Your task to perform on an android device: Search for a new eyeliner Image 0: 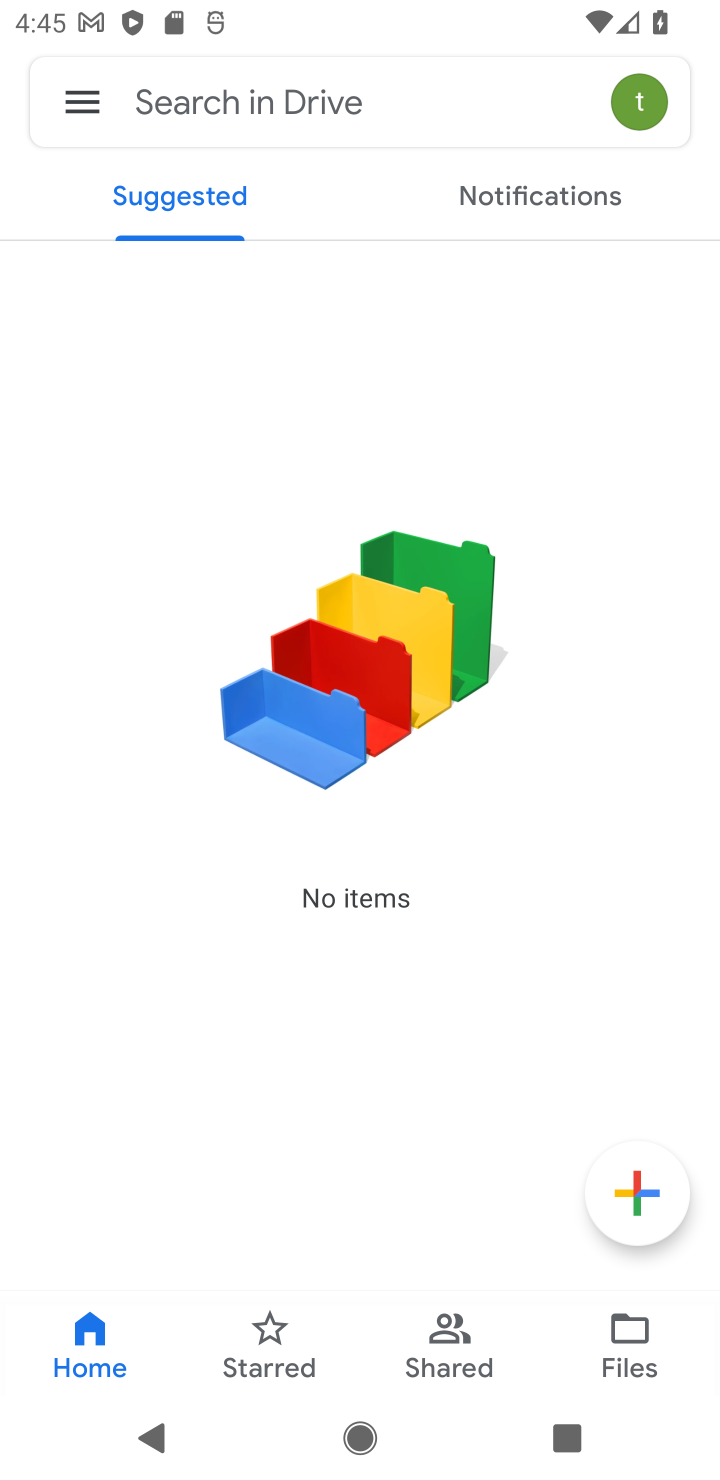
Step 0: press home button
Your task to perform on an android device: Search for a new eyeliner Image 1: 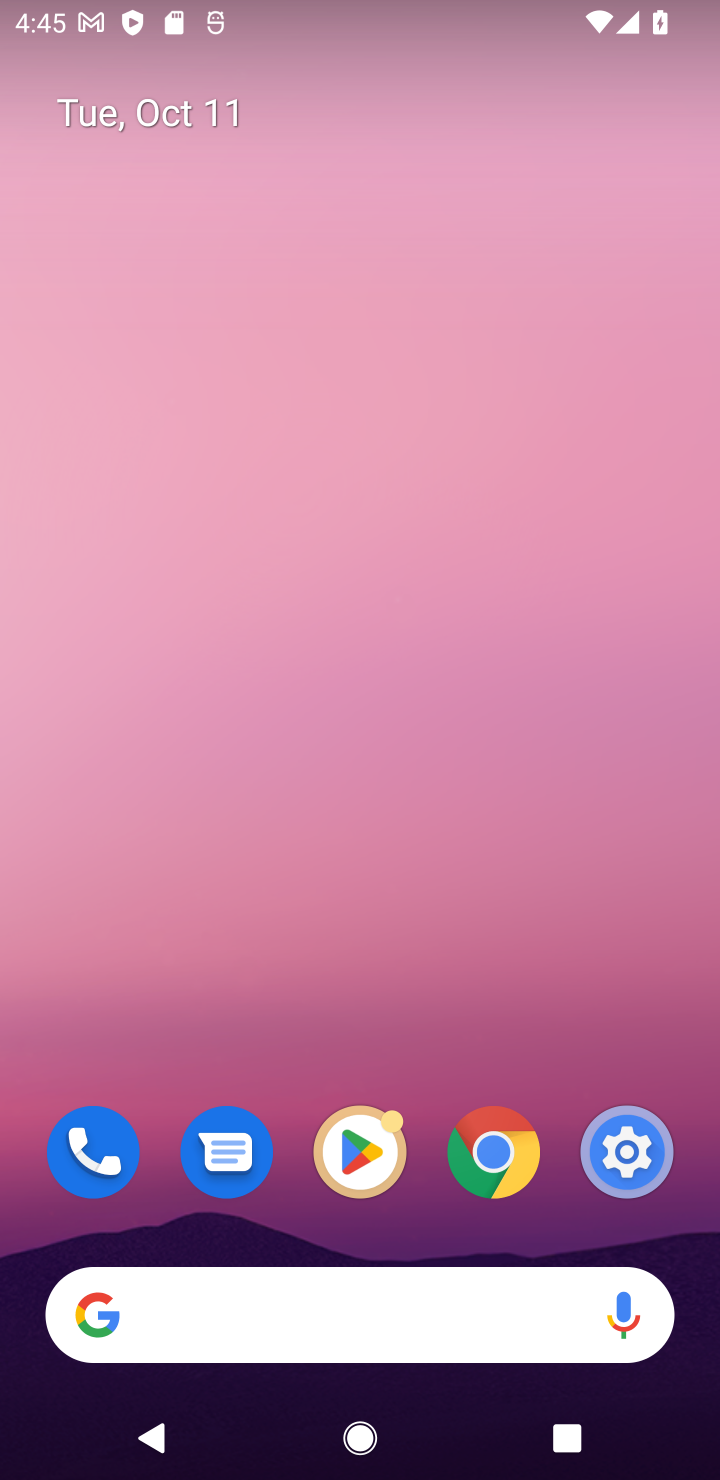
Step 1: click (492, 1172)
Your task to perform on an android device: Search for a new eyeliner Image 2: 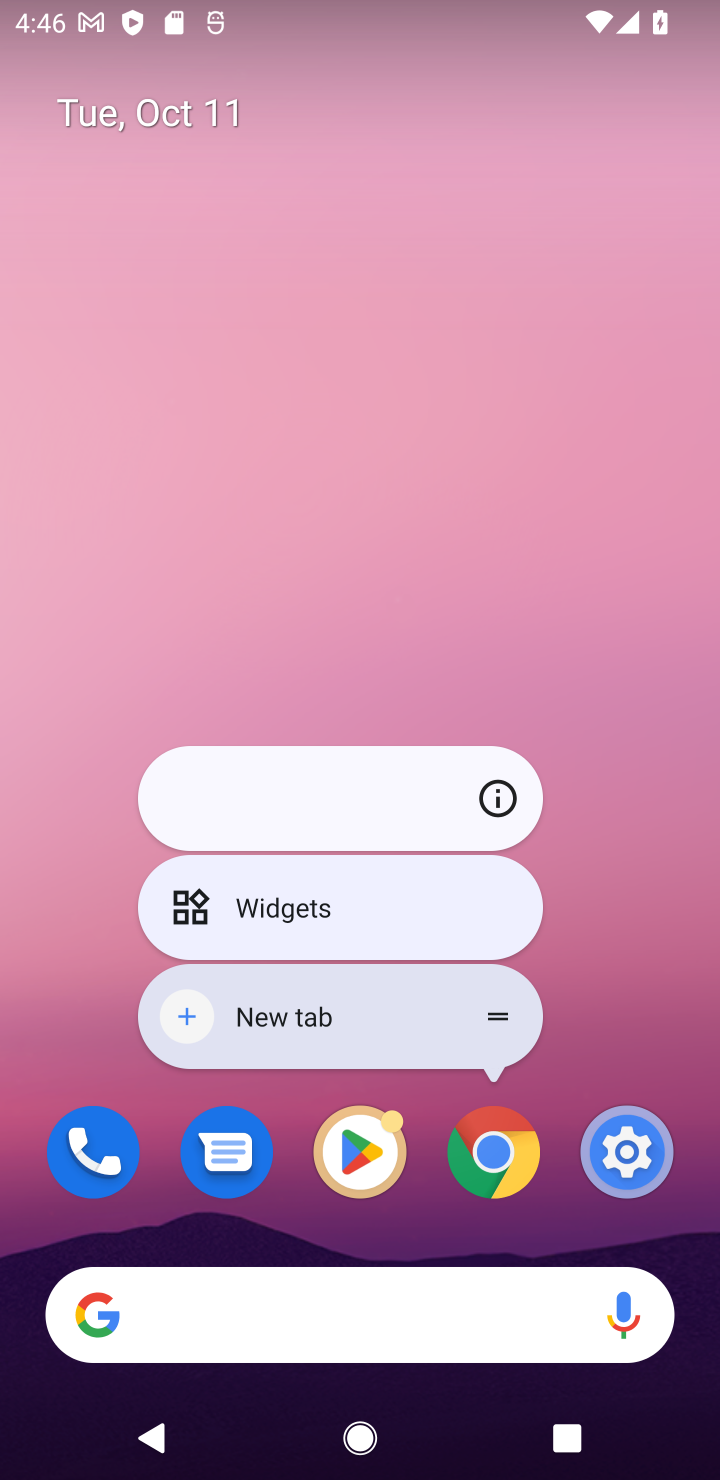
Step 2: click (503, 1199)
Your task to perform on an android device: Search for a new eyeliner Image 3: 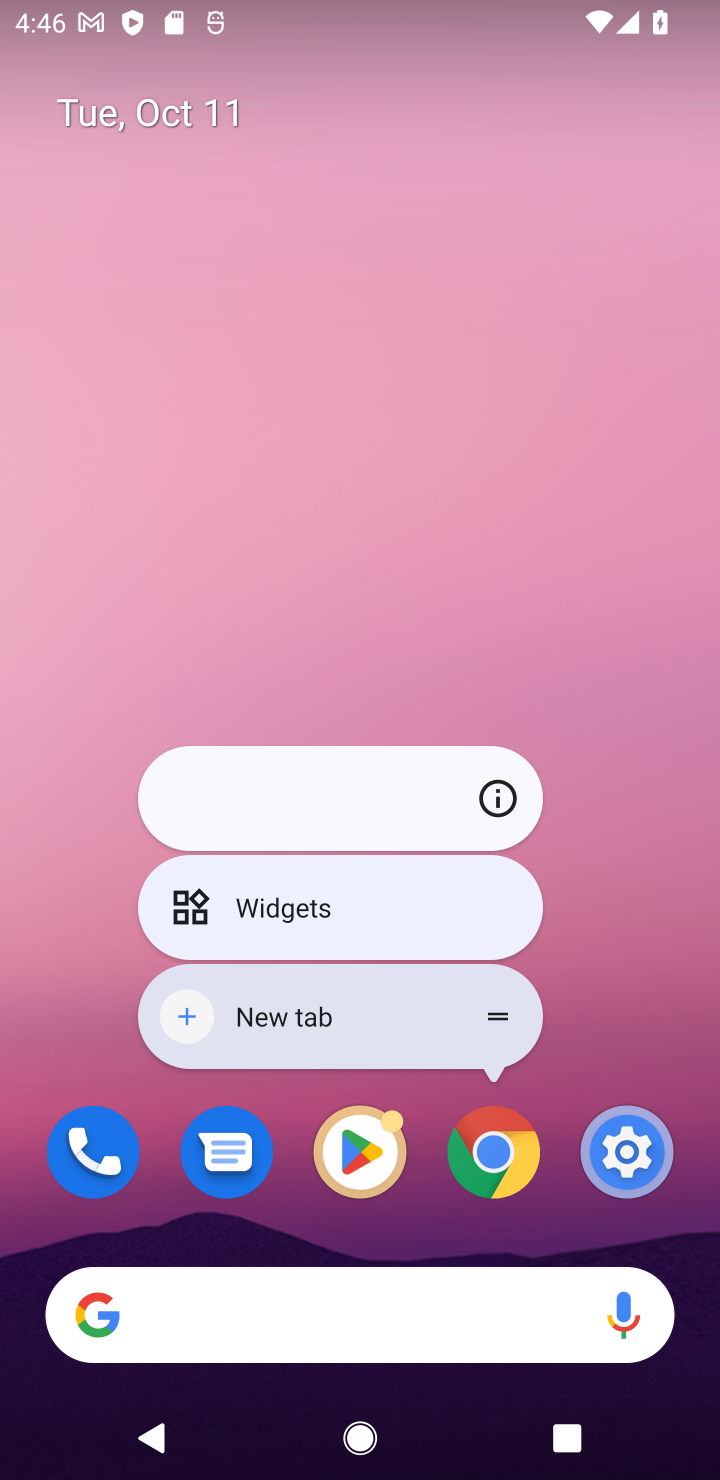
Step 3: click (287, 1326)
Your task to perform on an android device: Search for a new eyeliner Image 4: 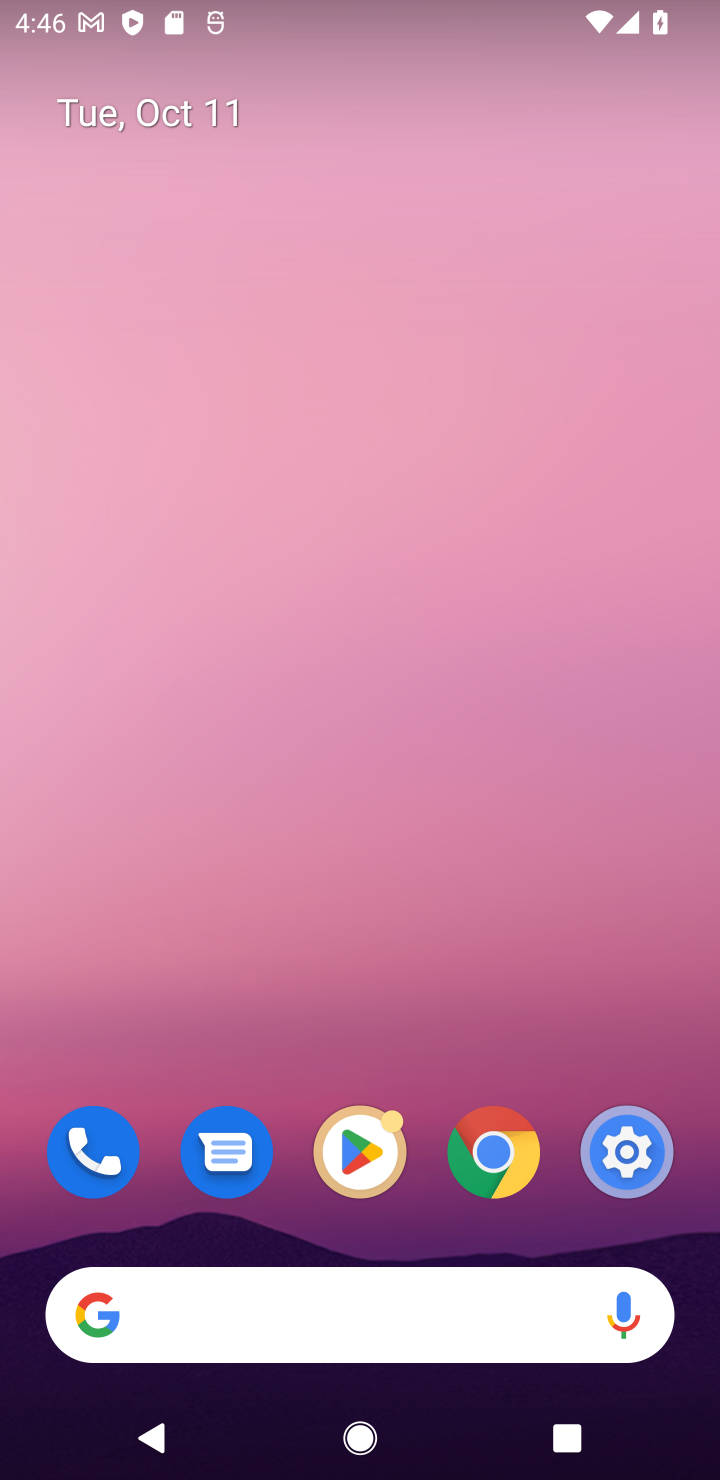
Step 4: click (313, 1334)
Your task to perform on an android device: Search for a new eyeliner Image 5: 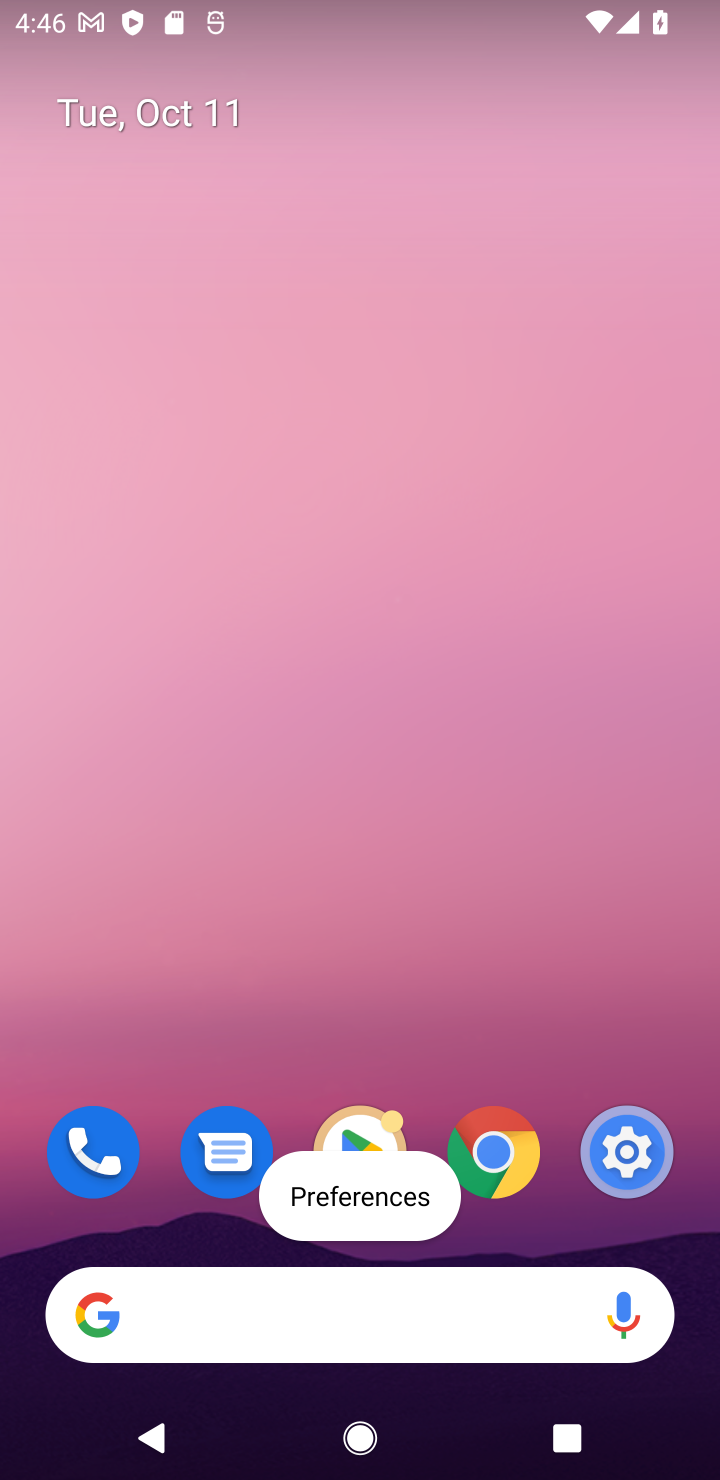
Step 5: click (504, 1153)
Your task to perform on an android device: Search for a new eyeliner Image 6: 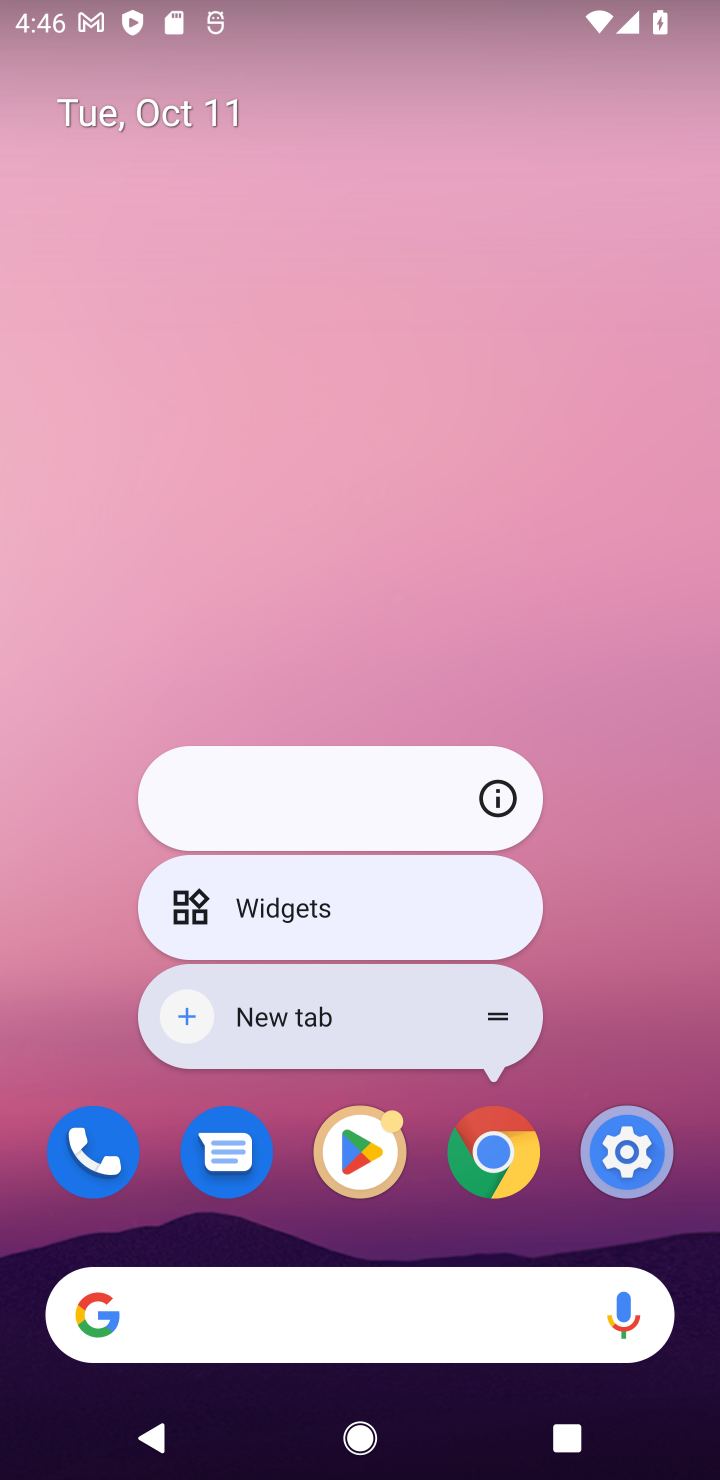
Step 6: click (494, 1197)
Your task to perform on an android device: Search for a new eyeliner Image 7: 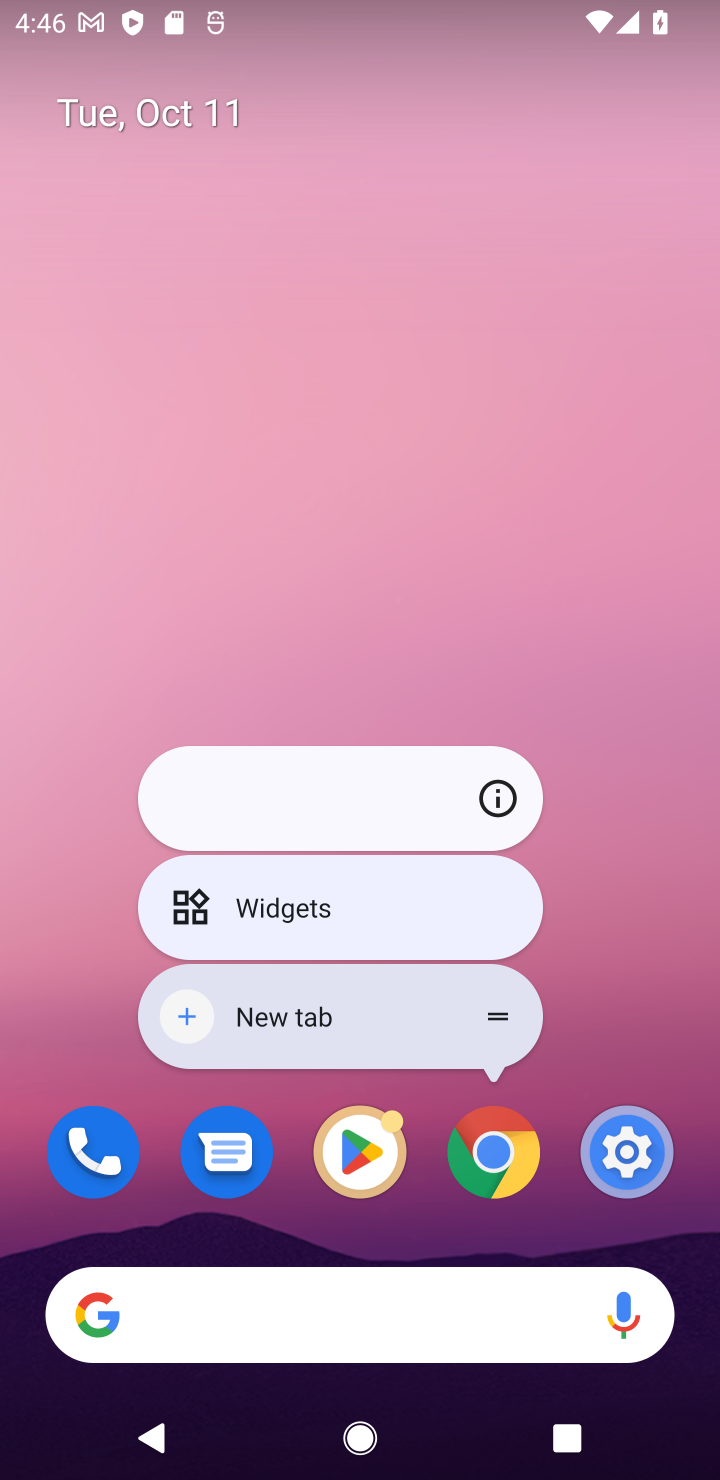
Step 7: click (350, 1017)
Your task to perform on an android device: Search for a new eyeliner Image 8: 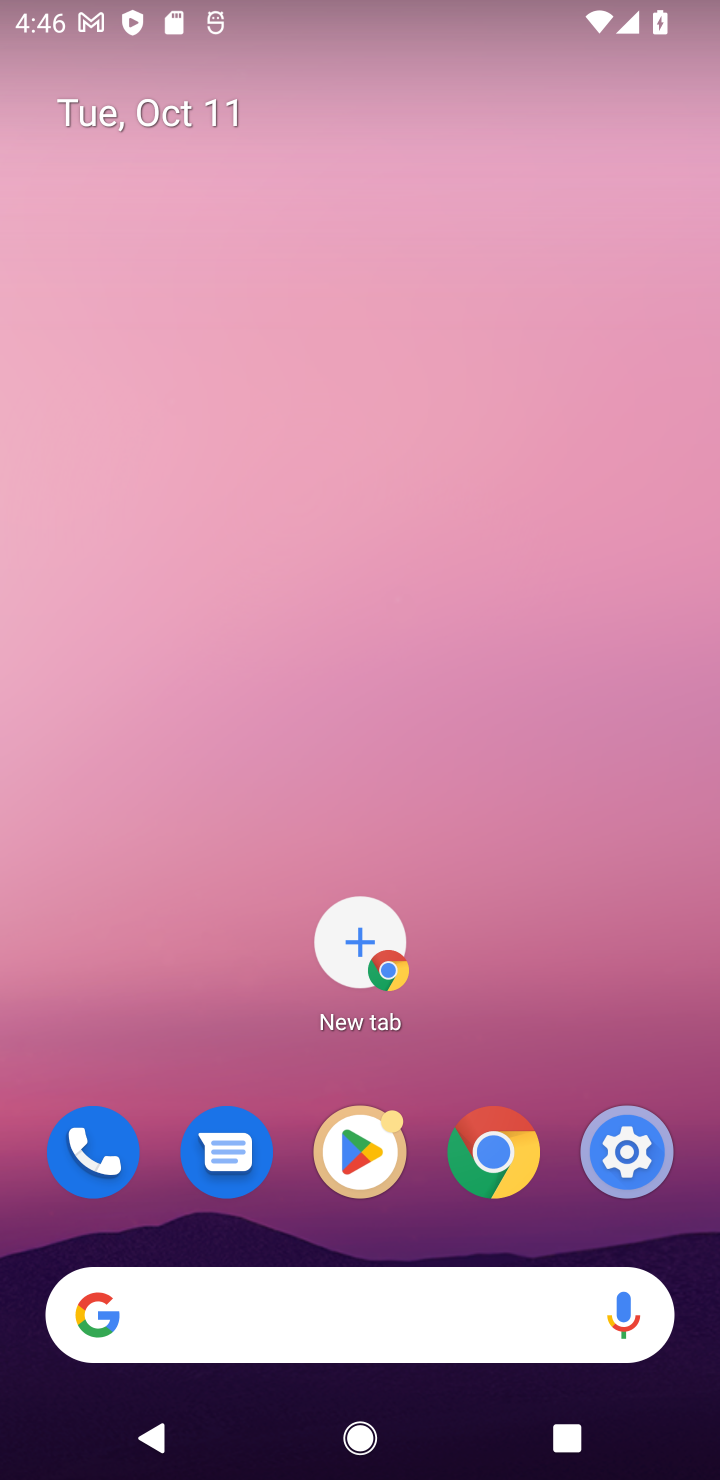
Step 8: click (380, 937)
Your task to perform on an android device: Search for a new eyeliner Image 9: 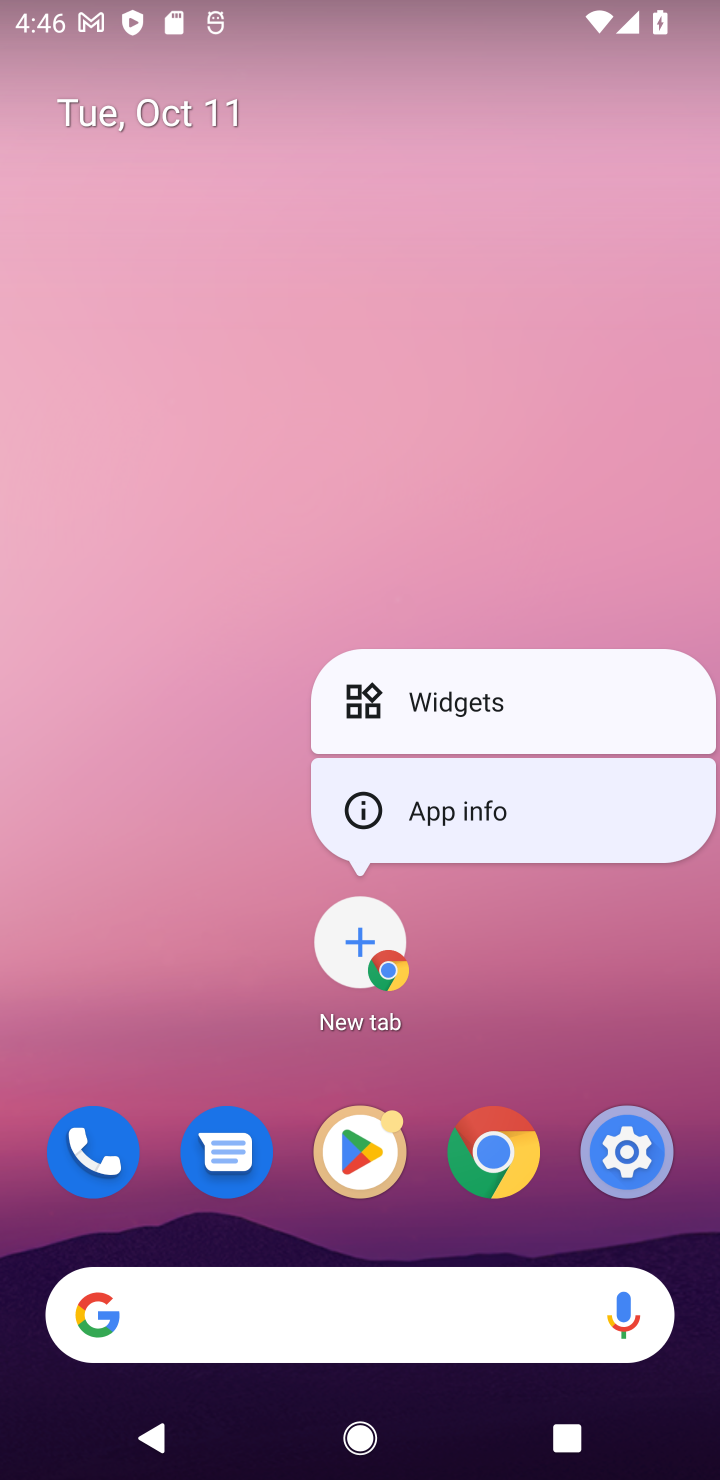
Step 9: click (456, 1032)
Your task to perform on an android device: Search for a new eyeliner Image 10: 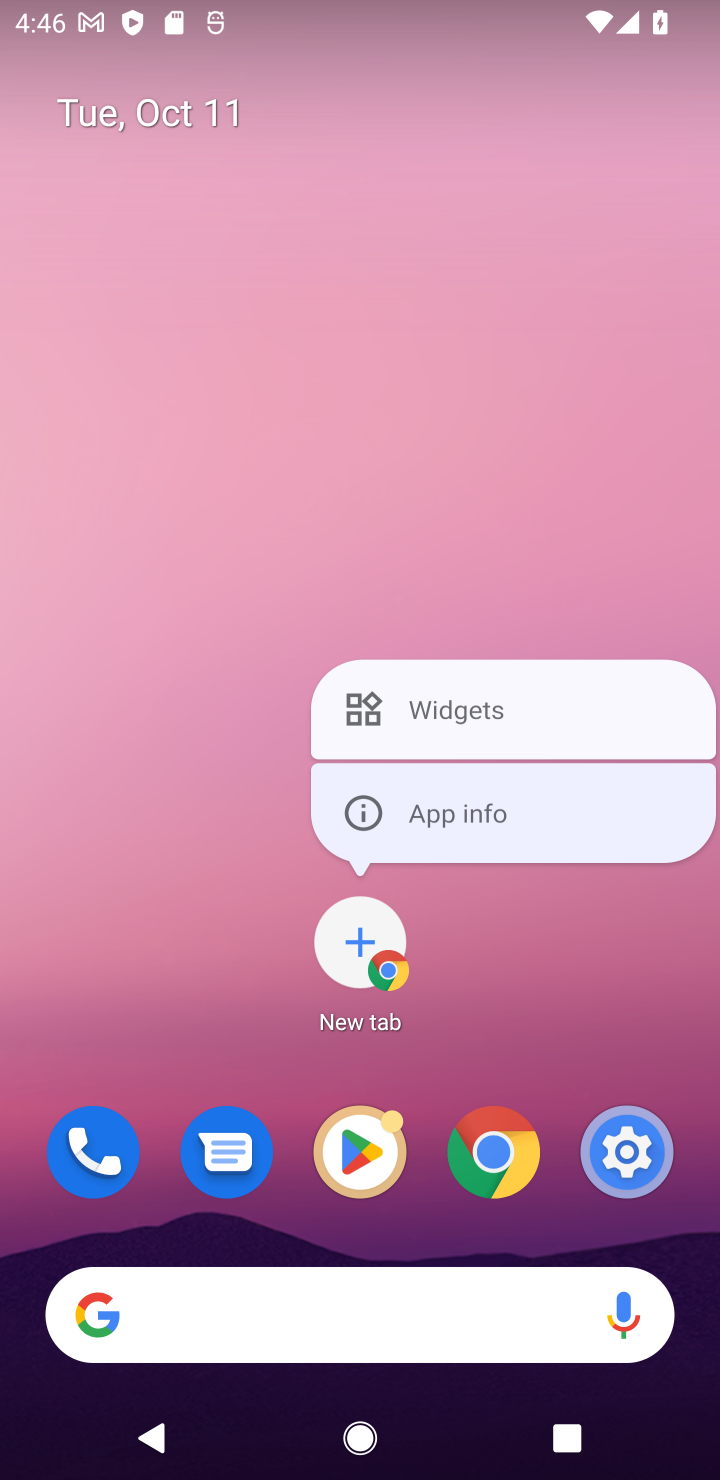
Step 10: click (484, 1156)
Your task to perform on an android device: Search for a new eyeliner Image 11: 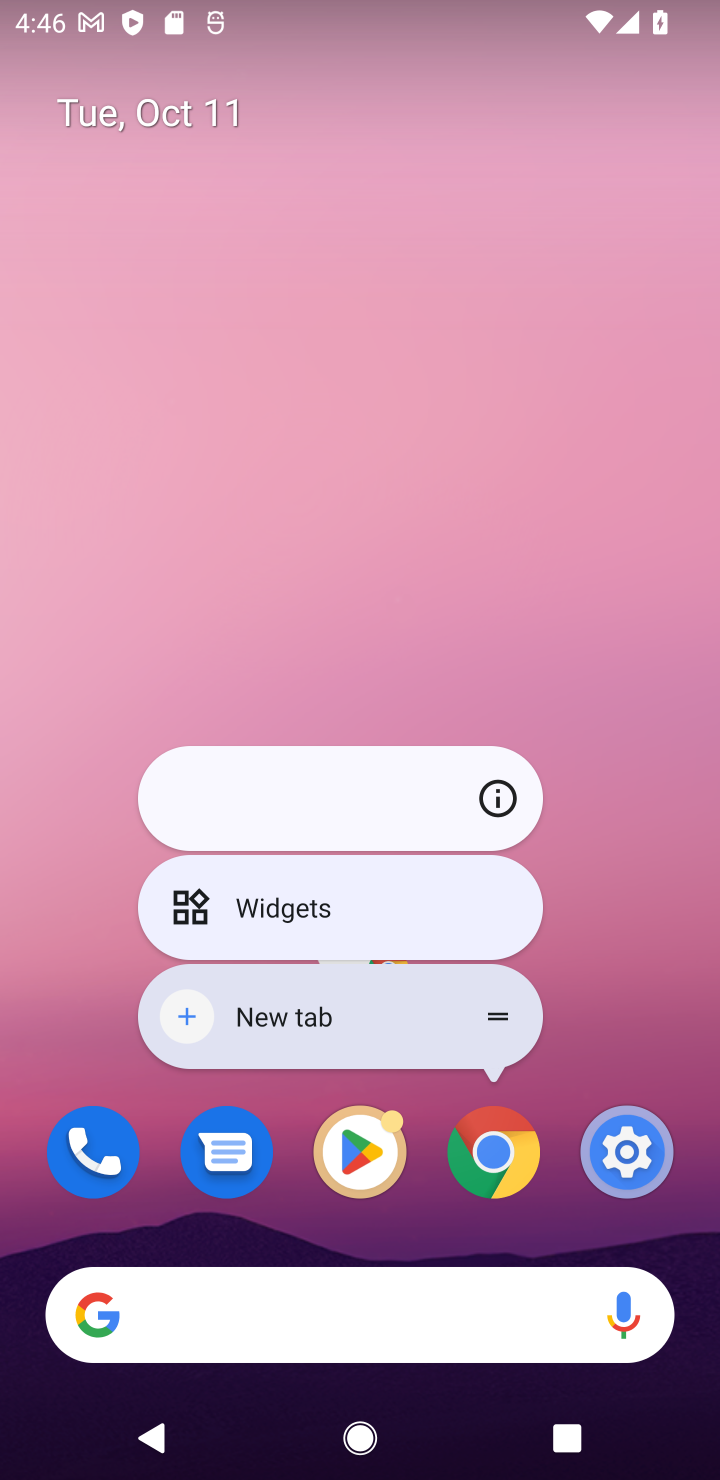
Step 11: click (507, 1166)
Your task to perform on an android device: Search for a new eyeliner Image 12: 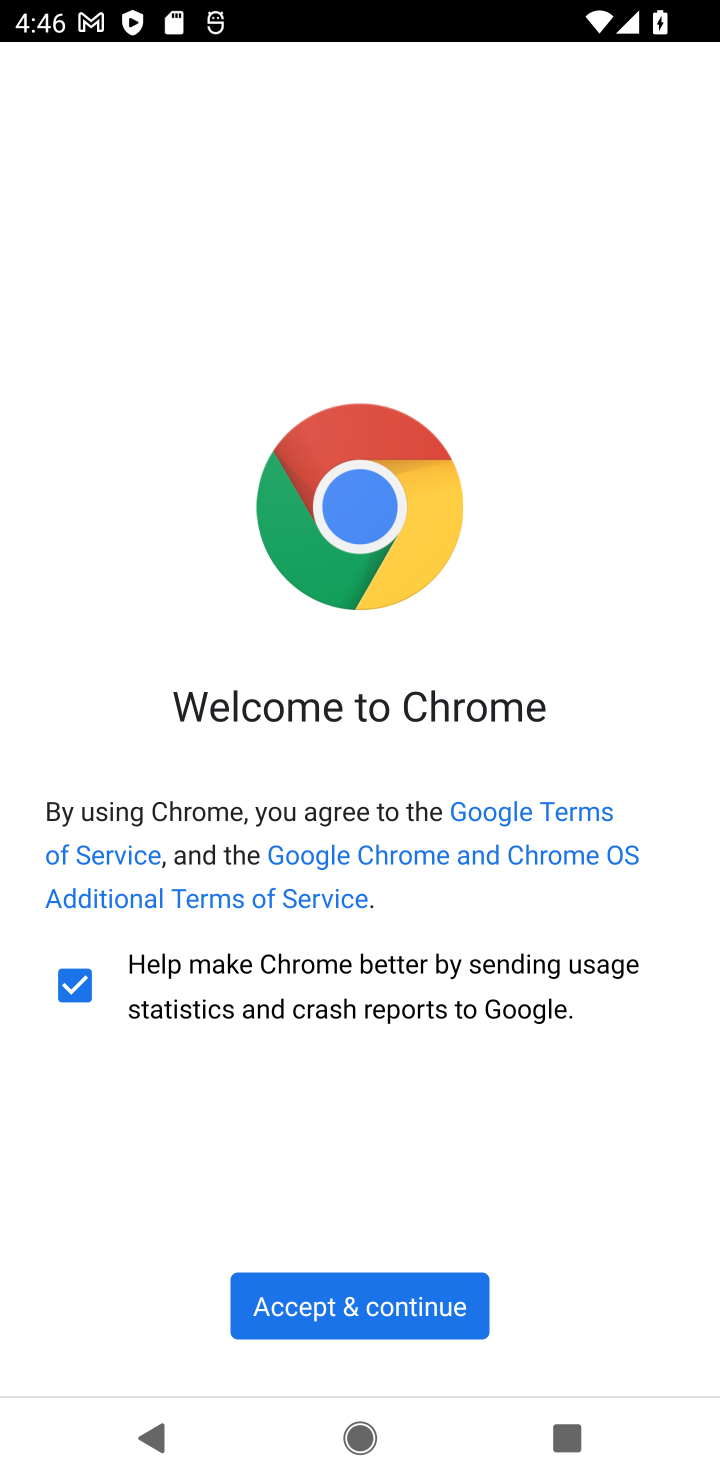
Step 12: click (438, 1303)
Your task to perform on an android device: Search for a new eyeliner Image 13: 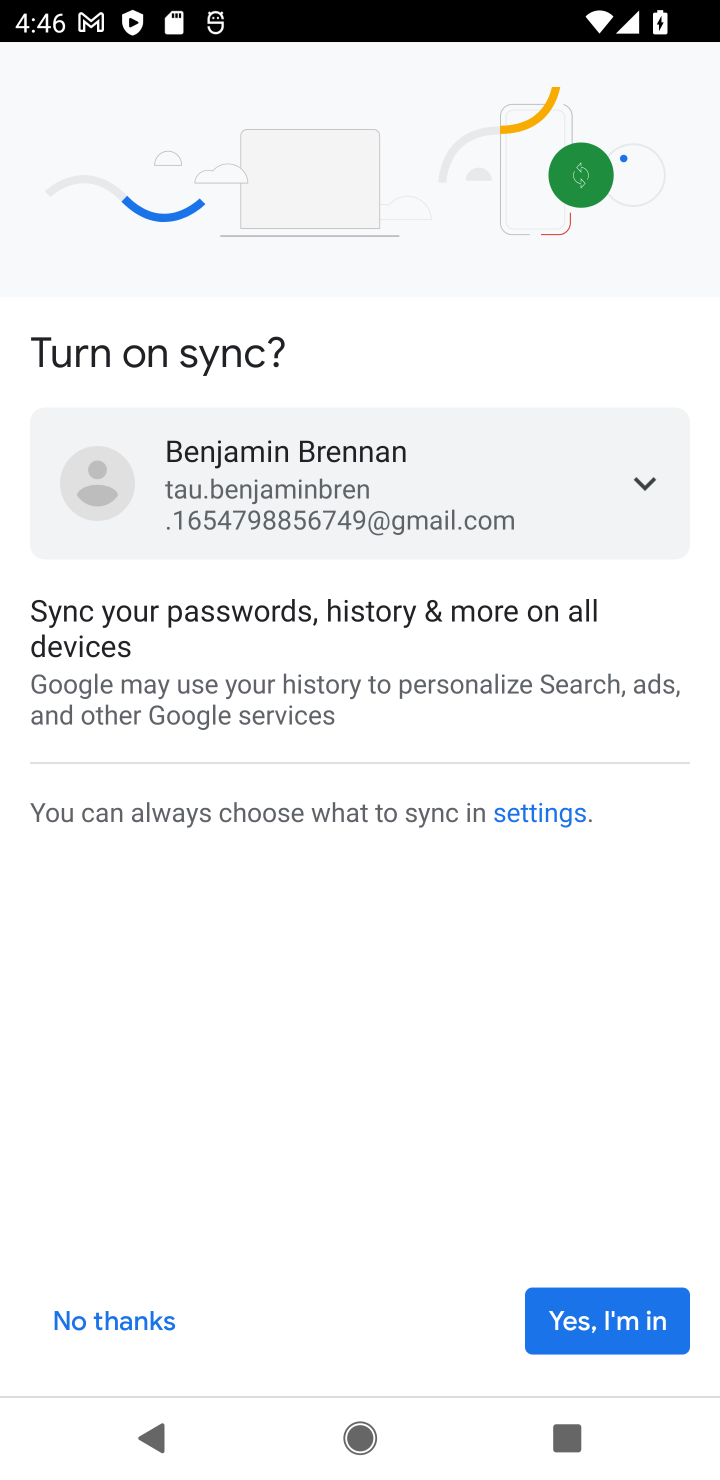
Step 13: click (630, 1324)
Your task to perform on an android device: Search for a new eyeliner Image 14: 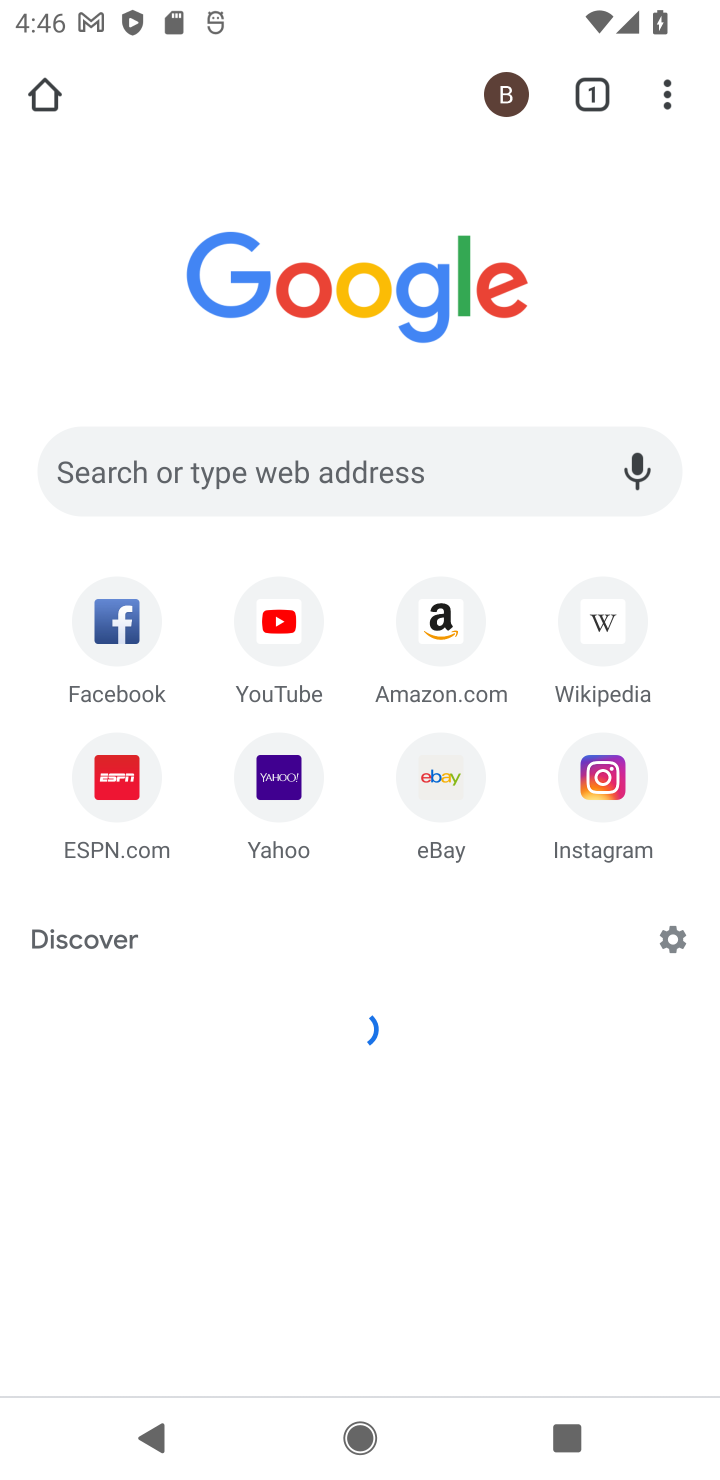
Step 14: click (419, 454)
Your task to perform on an android device: Search for a new eyeliner Image 15: 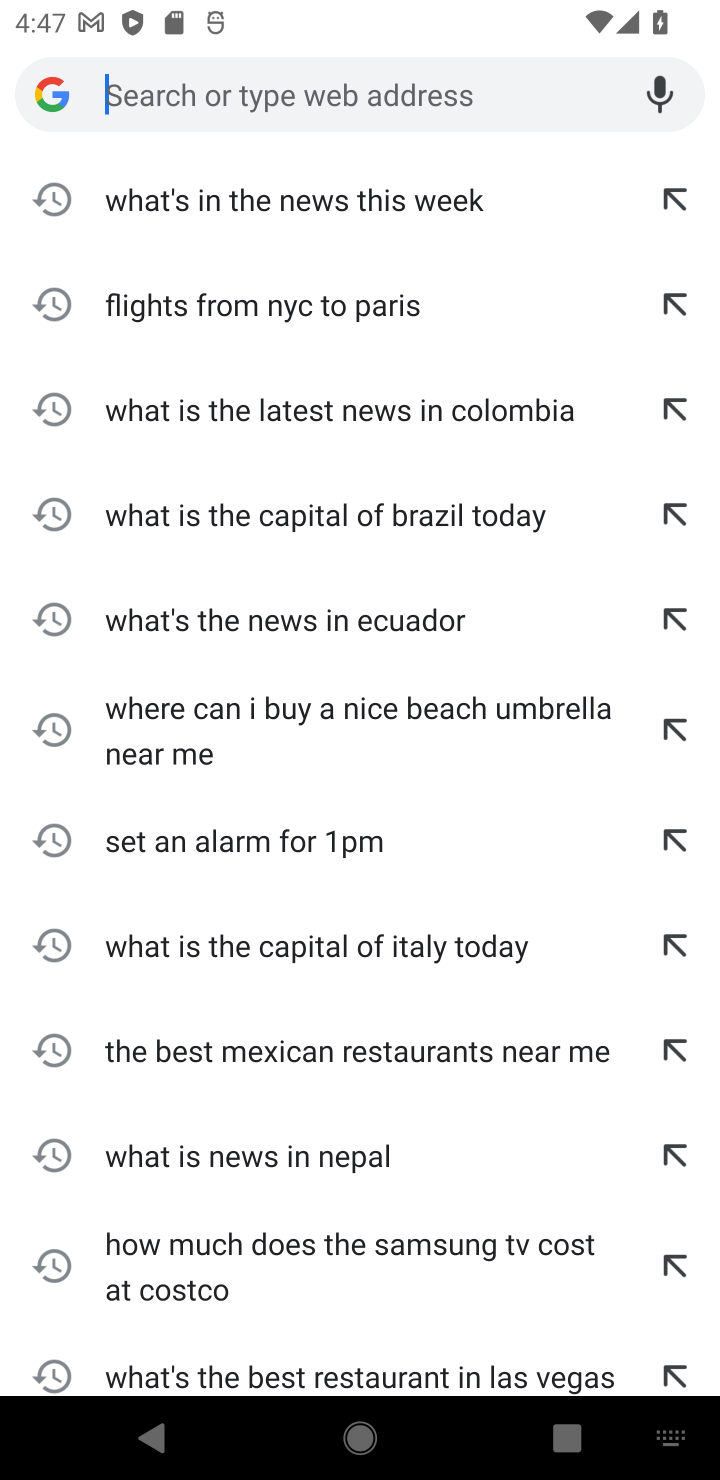
Step 15: type " a new eyeliner"
Your task to perform on an android device: Search for a new eyeliner Image 16: 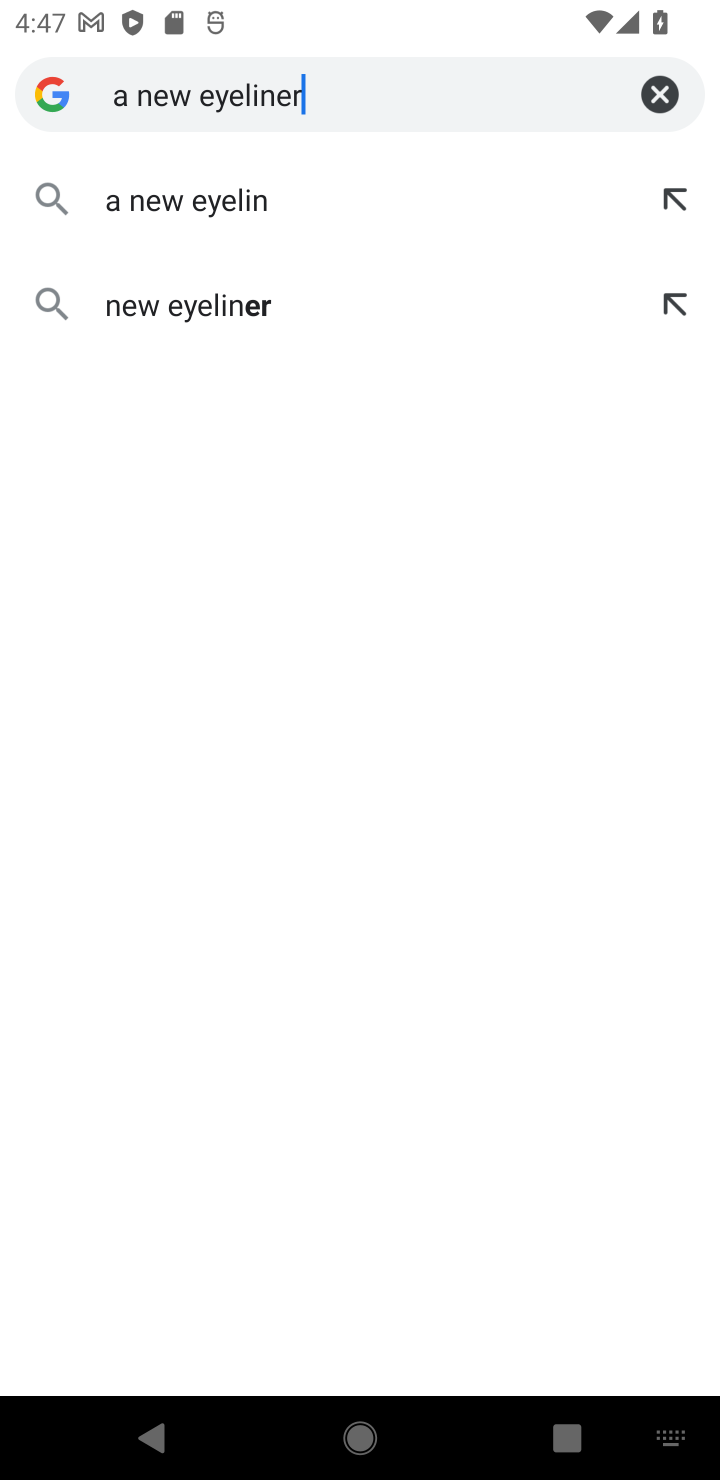
Step 16: type ""
Your task to perform on an android device: Search for a new eyeliner Image 17: 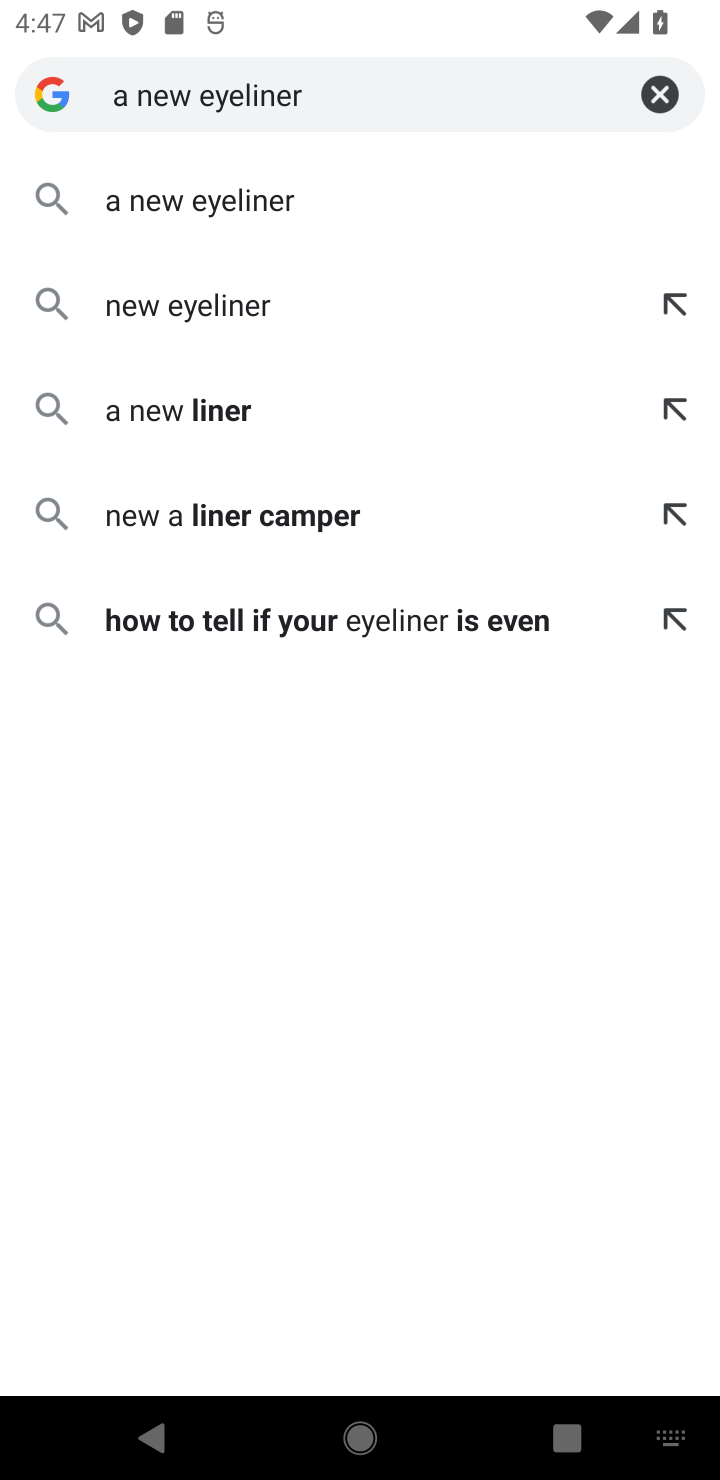
Step 17: press enter
Your task to perform on an android device: Search for a new eyeliner Image 18: 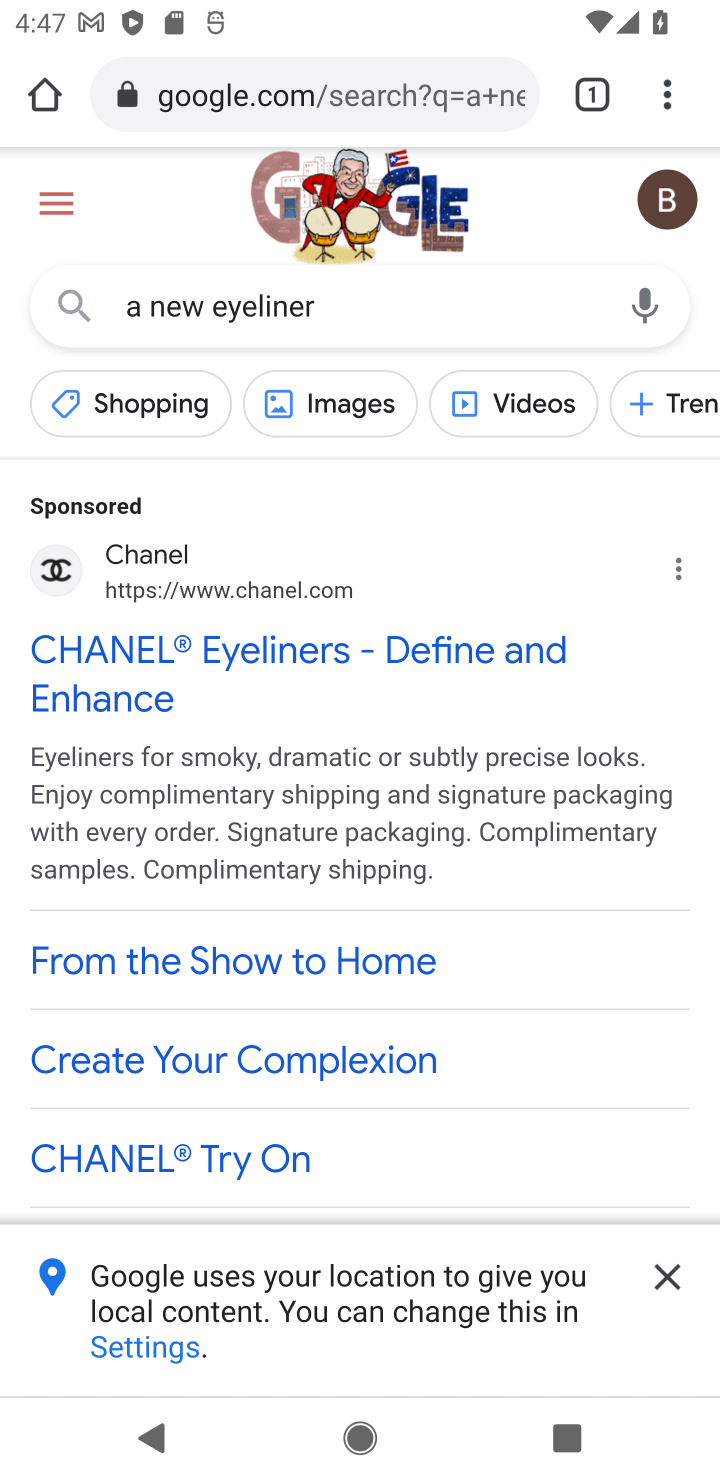
Step 18: click (304, 661)
Your task to perform on an android device: Search for a new eyeliner Image 19: 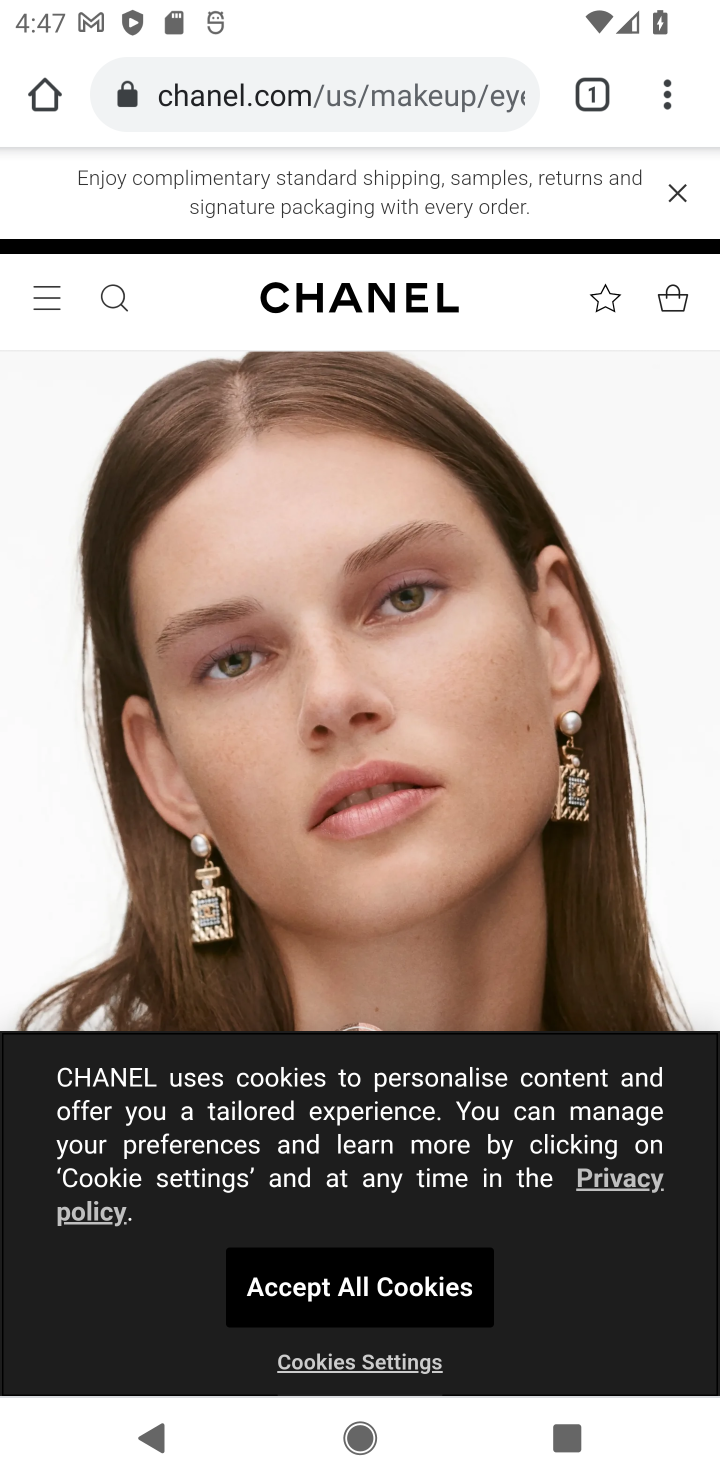
Step 19: click (413, 480)
Your task to perform on an android device: Search for a new eyeliner Image 20: 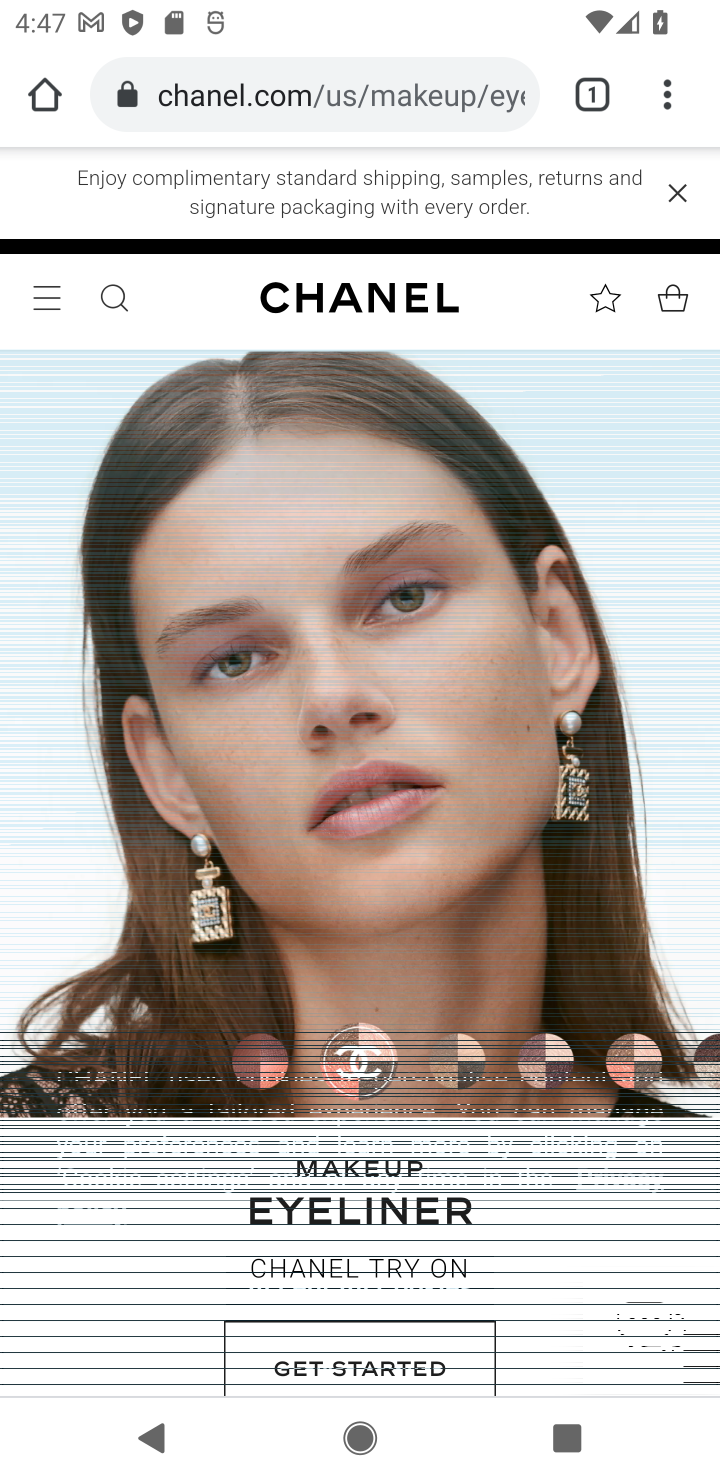
Step 20: drag from (464, 357) to (468, 279)
Your task to perform on an android device: Search for a new eyeliner Image 21: 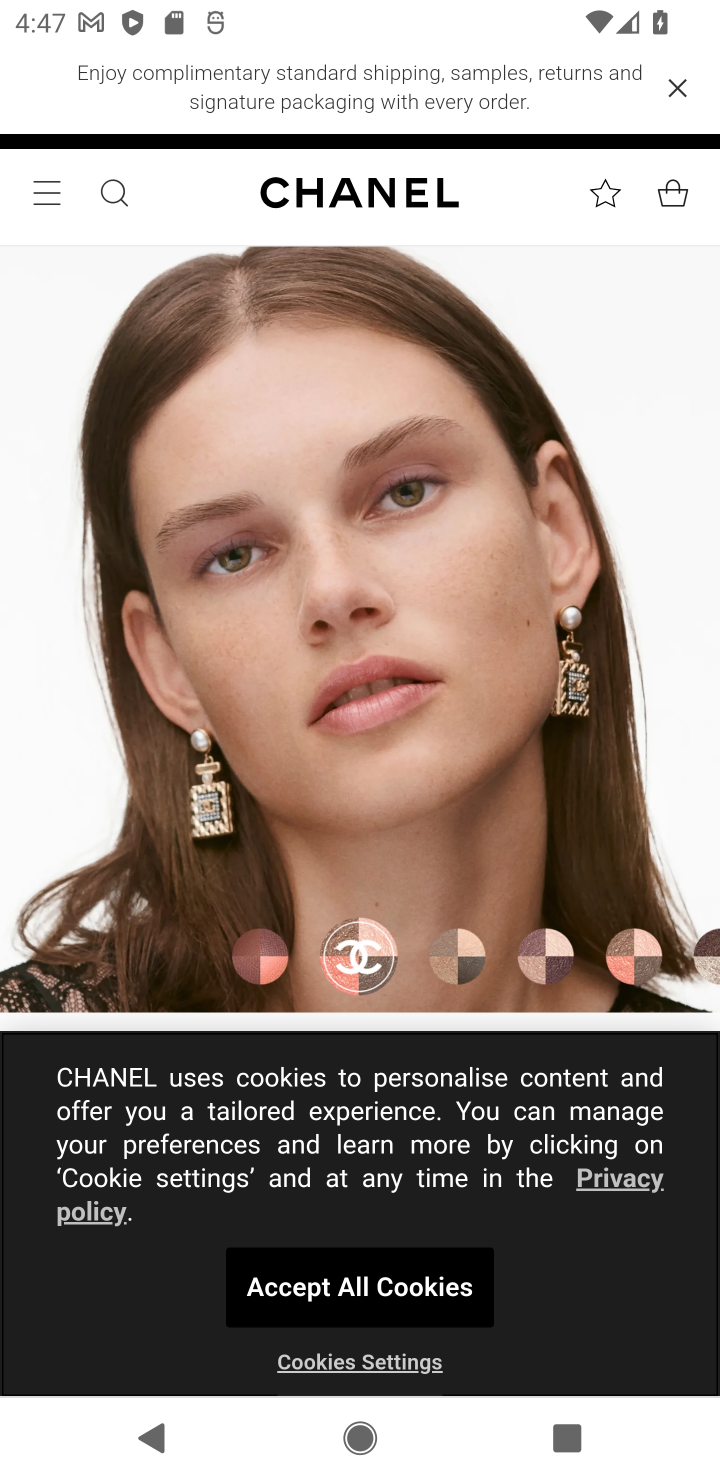
Step 21: click (504, 401)
Your task to perform on an android device: Search for a new eyeliner Image 22: 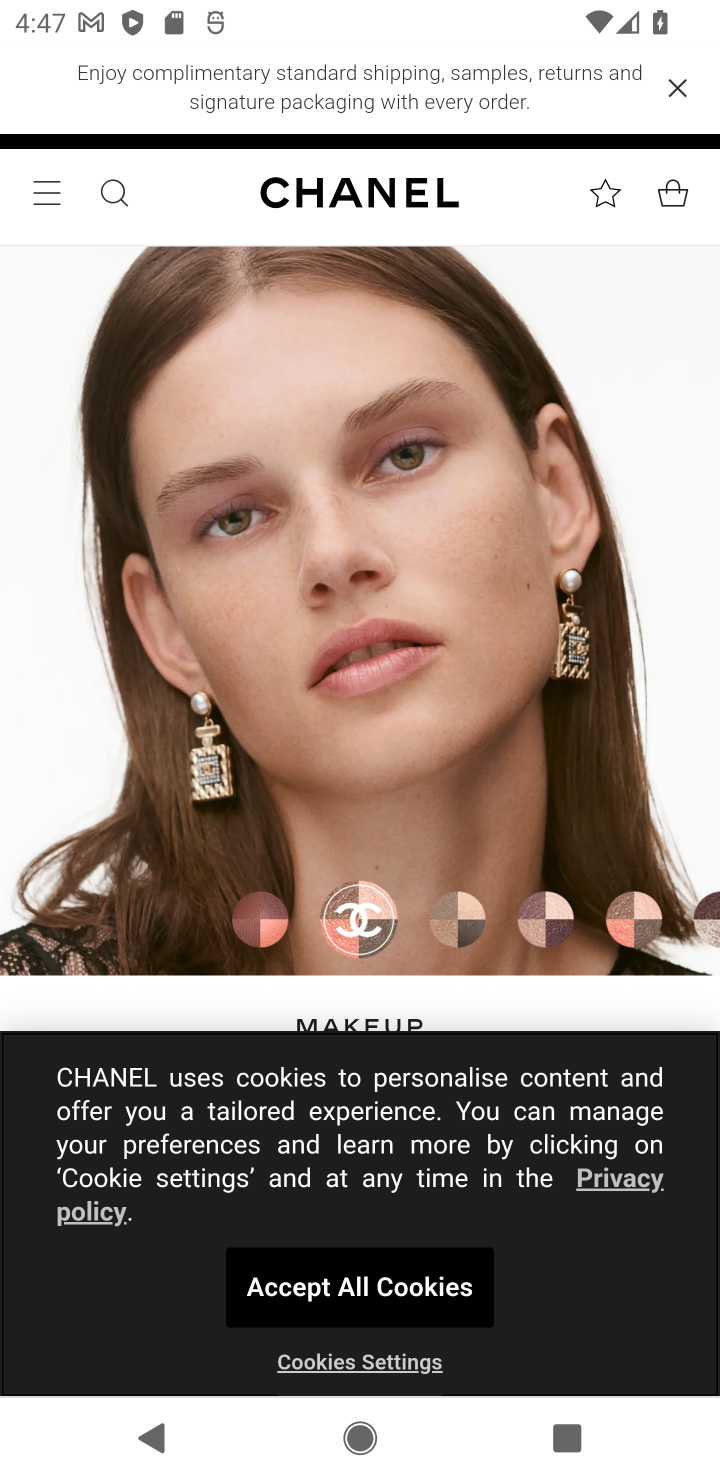
Step 22: task complete